Your task to perform on an android device: open app "Adobe Acrobat Reader" Image 0: 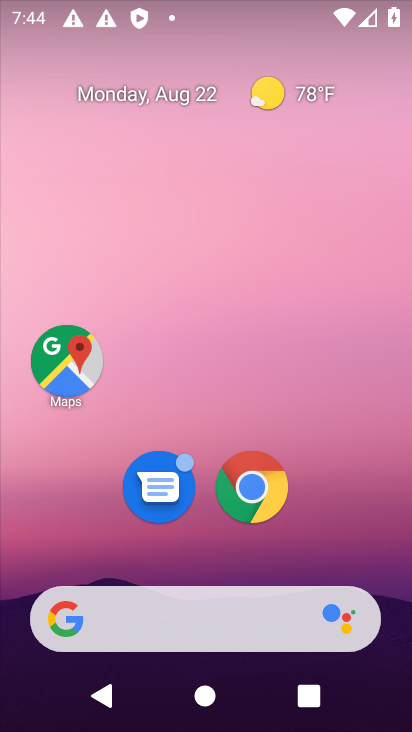
Step 0: drag from (287, 540) to (305, 71)
Your task to perform on an android device: open app "Adobe Acrobat Reader" Image 1: 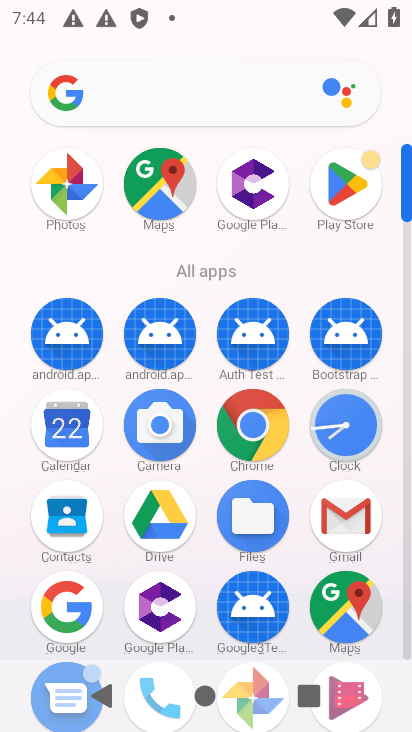
Step 1: click (338, 192)
Your task to perform on an android device: open app "Adobe Acrobat Reader" Image 2: 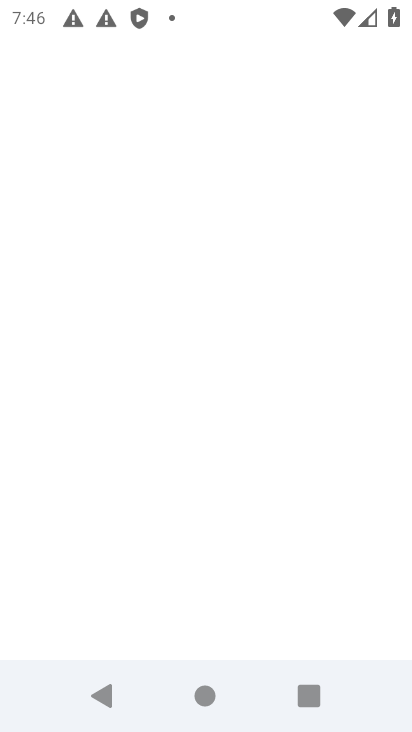
Step 2: task complete